Your task to perform on an android device: When is my next meeting? Image 0: 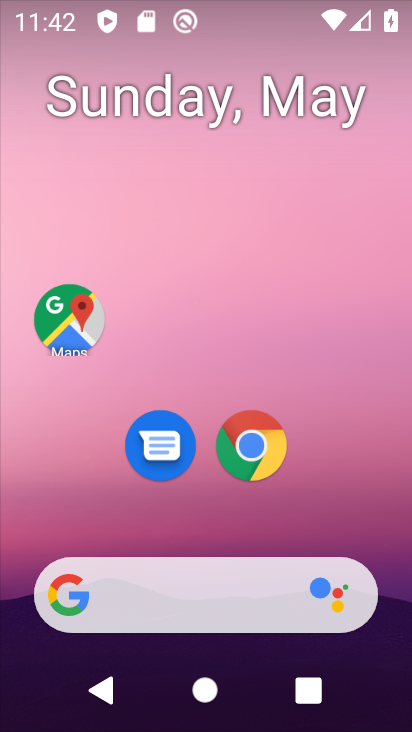
Step 0: drag from (233, 508) to (250, 68)
Your task to perform on an android device: When is my next meeting? Image 1: 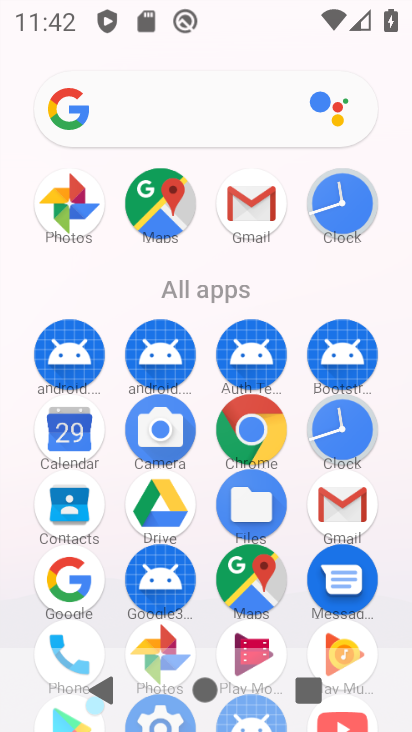
Step 1: drag from (319, 620) to (294, 140)
Your task to perform on an android device: When is my next meeting? Image 2: 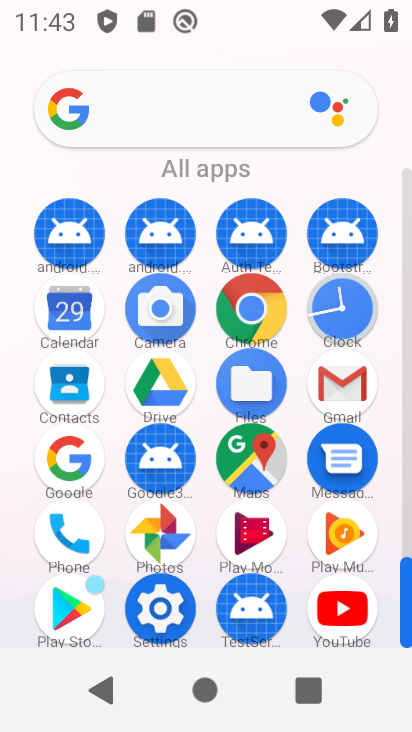
Step 2: click (85, 309)
Your task to perform on an android device: When is my next meeting? Image 3: 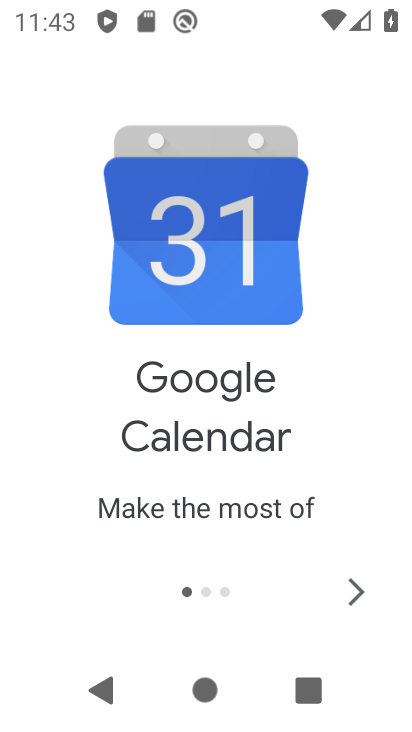
Step 3: click (357, 587)
Your task to perform on an android device: When is my next meeting? Image 4: 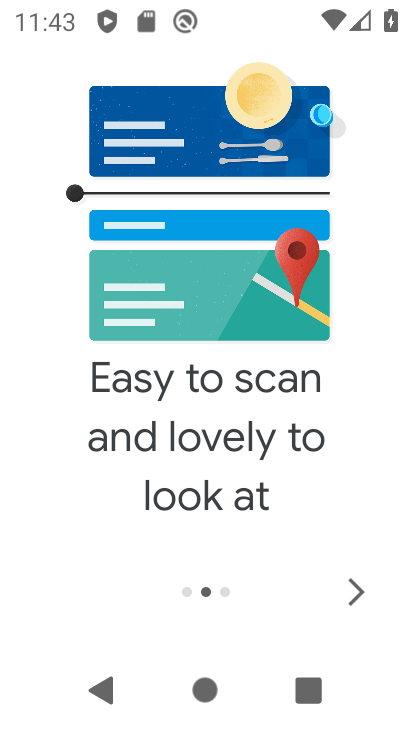
Step 4: click (363, 572)
Your task to perform on an android device: When is my next meeting? Image 5: 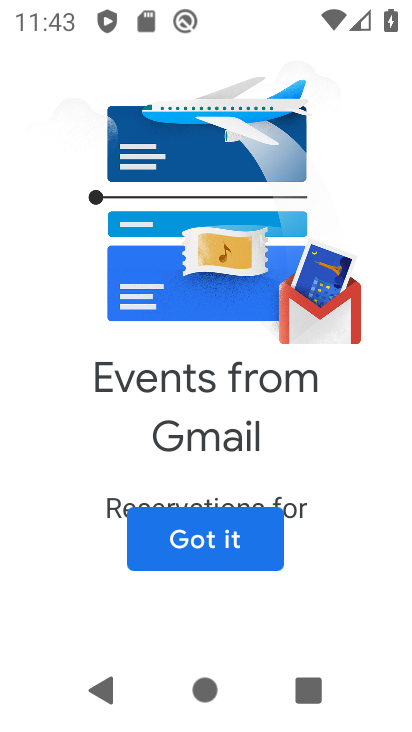
Step 5: click (349, 597)
Your task to perform on an android device: When is my next meeting? Image 6: 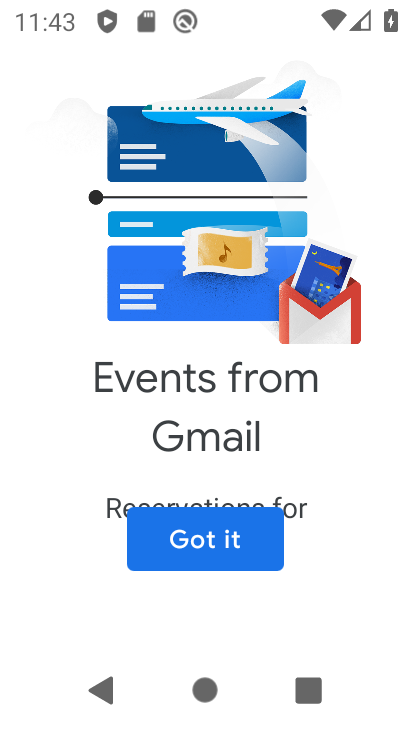
Step 6: click (250, 540)
Your task to perform on an android device: When is my next meeting? Image 7: 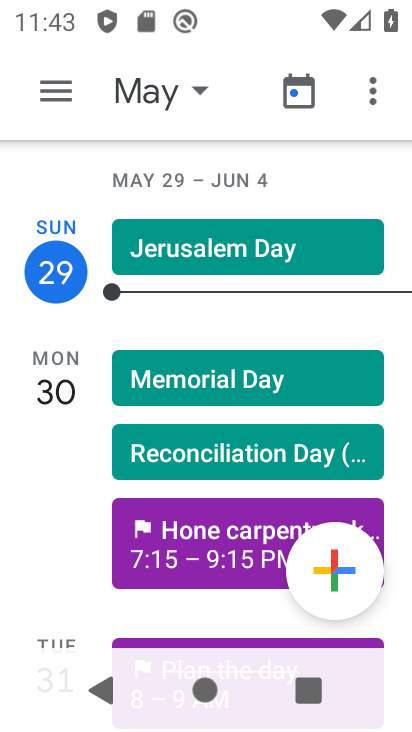
Step 7: click (203, 89)
Your task to perform on an android device: When is my next meeting? Image 8: 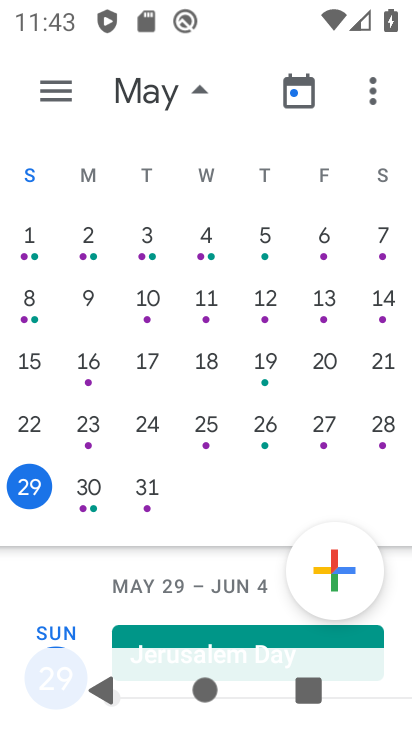
Step 8: click (45, 85)
Your task to perform on an android device: When is my next meeting? Image 9: 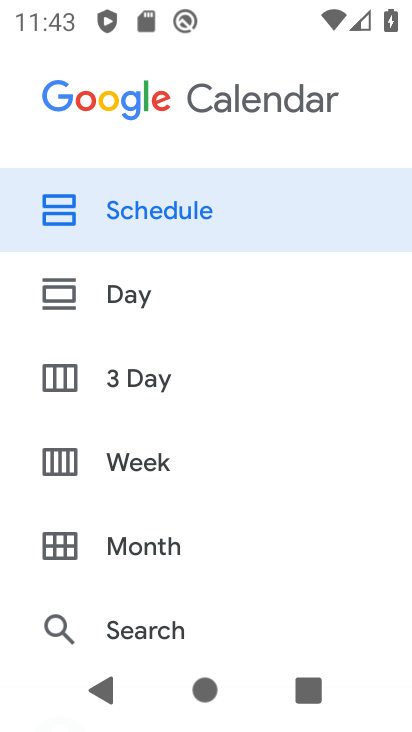
Step 9: click (120, 207)
Your task to perform on an android device: When is my next meeting? Image 10: 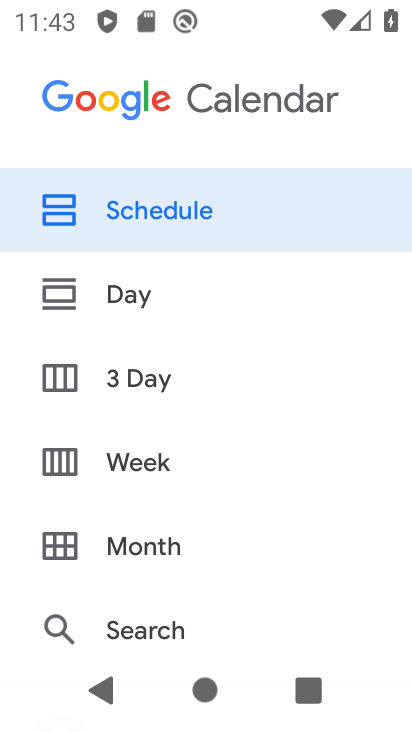
Step 10: click (120, 207)
Your task to perform on an android device: When is my next meeting? Image 11: 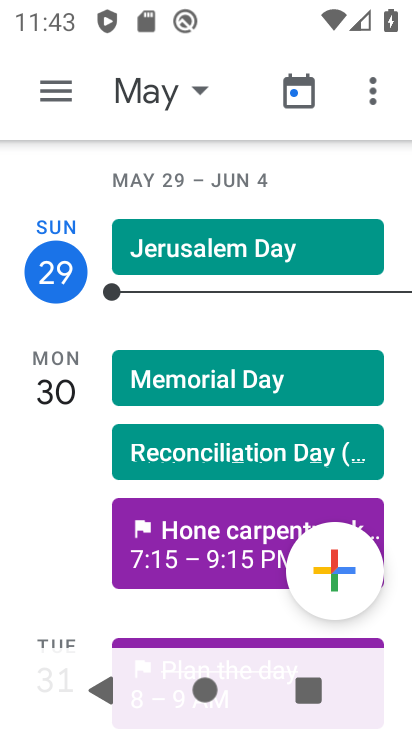
Step 11: task complete